Your task to perform on an android device: visit the assistant section in the google photos Image 0: 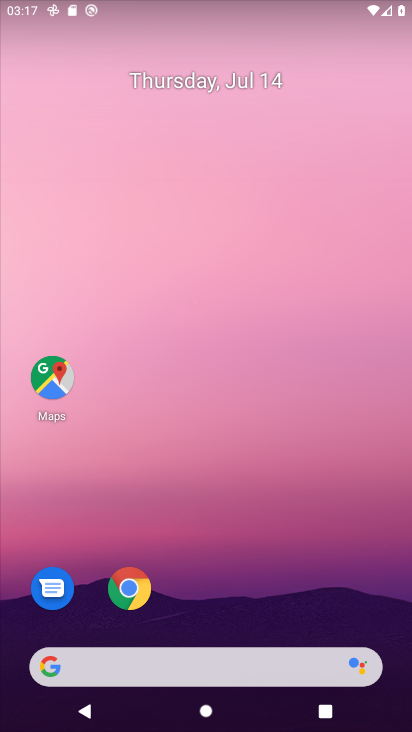
Step 0: drag from (259, 623) to (222, 172)
Your task to perform on an android device: visit the assistant section in the google photos Image 1: 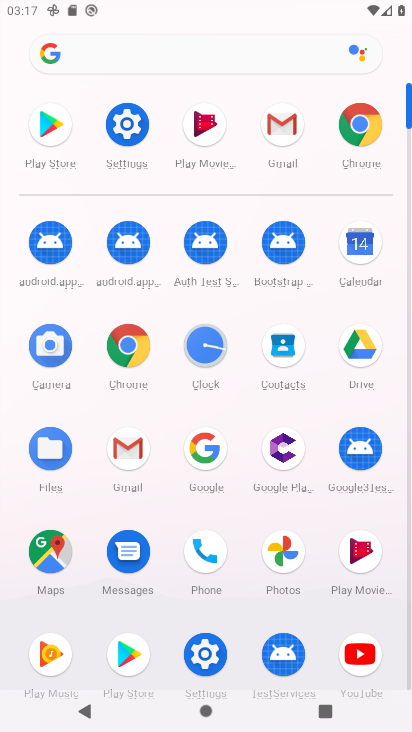
Step 1: click (279, 560)
Your task to perform on an android device: visit the assistant section in the google photos Image 2: 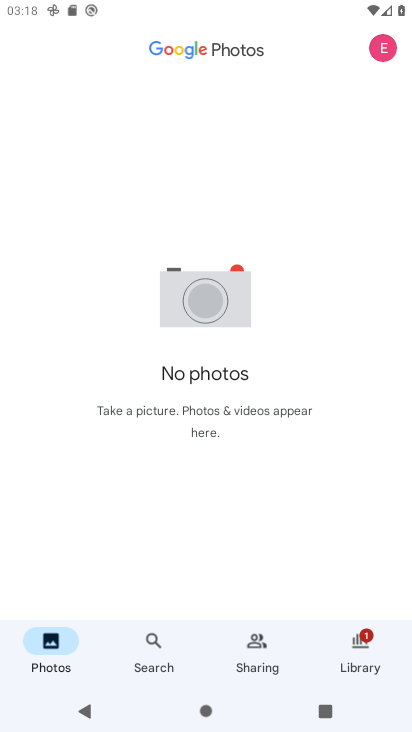
Step 2: click (261, 633)
Your task to perform on an android device: visit the assistant section in the google photos Image 3: 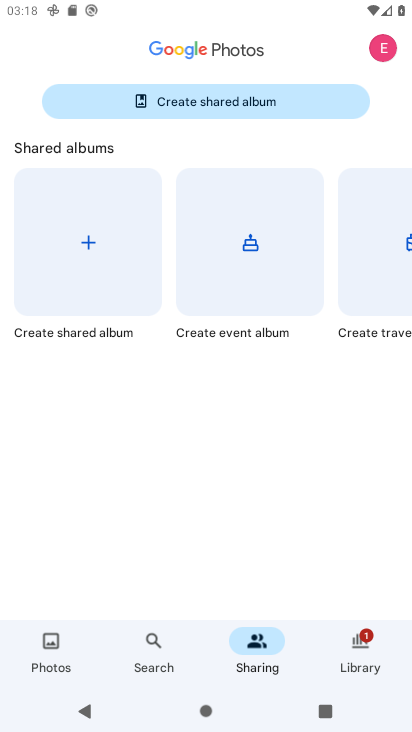
Step 3: click (350, 643)
Your task to perform on an android device: visit the assistant section in the google photos Image 4: 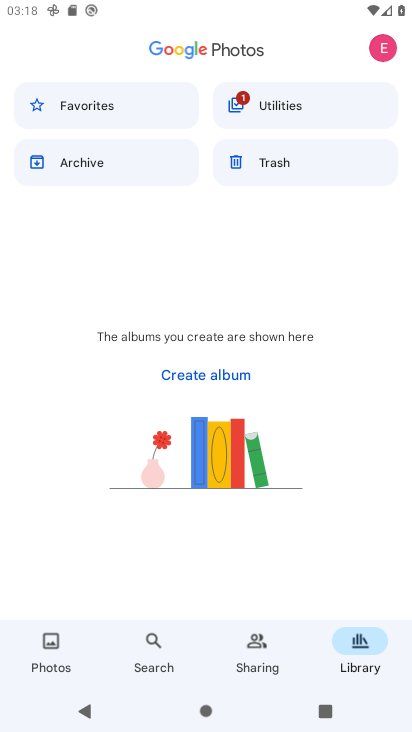
Step 4: click (156, 637)
Your task to perform on an android device: visit the assistant section in the google photos Image 5: 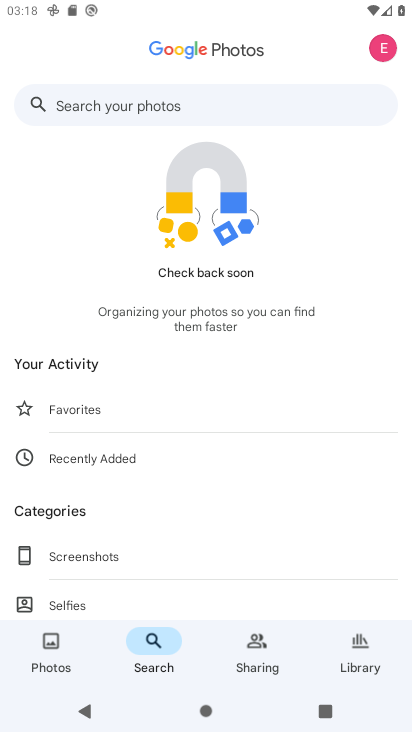
Step 5: task complete